Your task to perform on an android device: Go to sound settings Image 0: 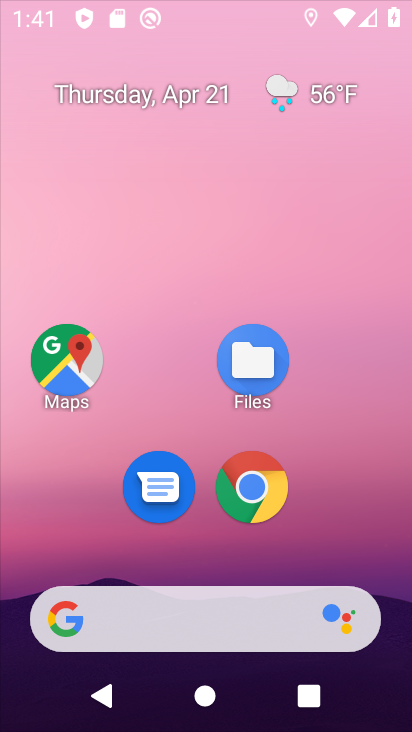
Step 0: click (362, 162)
Your task to perform on an android device: Go to sound settings Image 1: 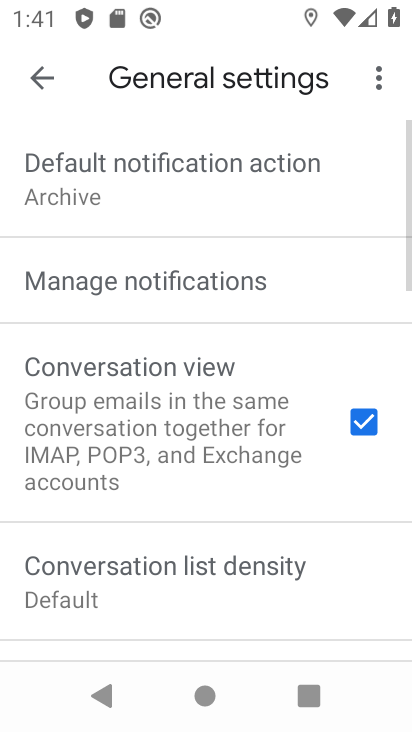
Step 1: press home button
Your task to perform on an android device: Go to sound settings Image 2: 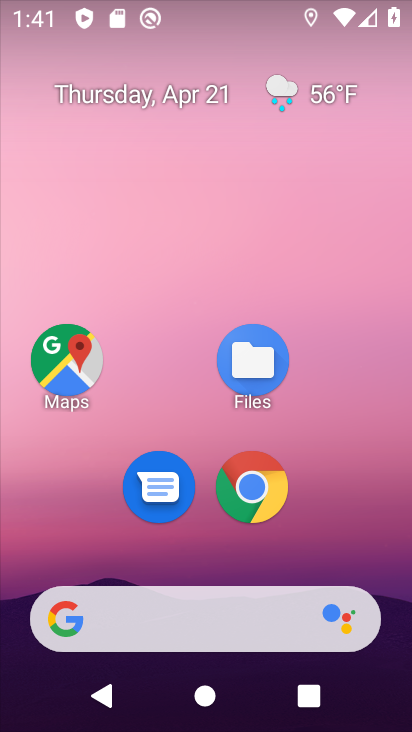
Step 2: drag from (334, 464) to (320, 119)
Your task to perform on an android device: Go to sound settings Image 3: 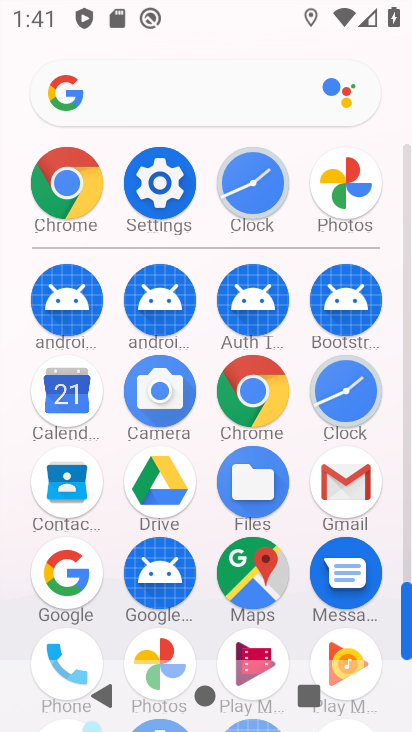
Step 3: click (144, 187)
Your task to perform on an android device: Go to sound settings Image 4: 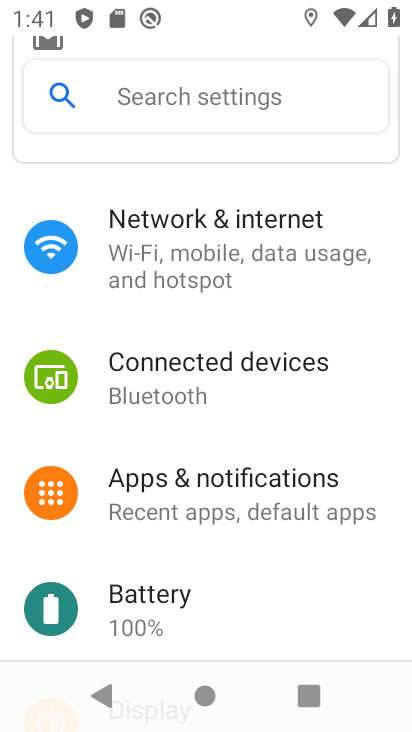
Step 4: drag from (298, 591) to (351, 246)
Your task to perform on an android device: Go to sound settings Image 5: 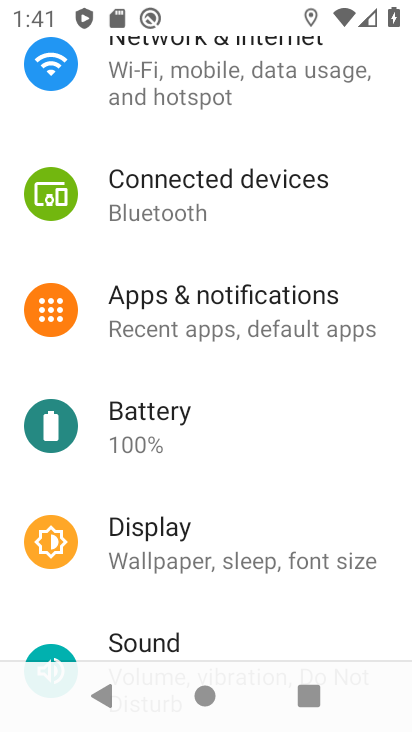
Step 5: drag from (282, 627) to (354, 290)
Your task to perform on an android device: Go to sound settings Image 6: 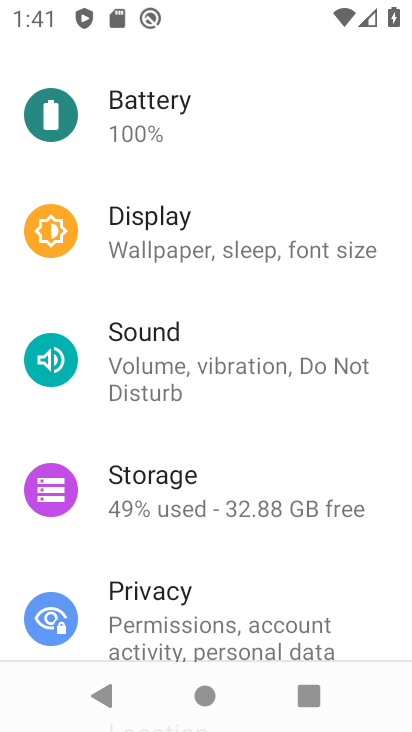
Step 6: click (228, 379)
Your task to perform on an android device: Go to sound settings Image 7: 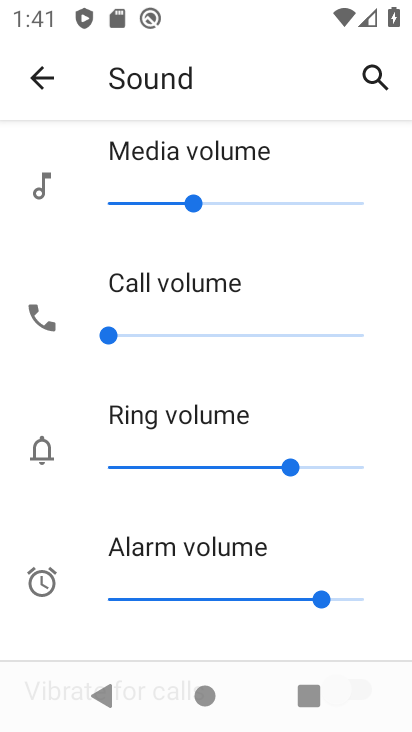
Step 7: task complete